Your task to perform on an android device: set the stopwatch Image 0: 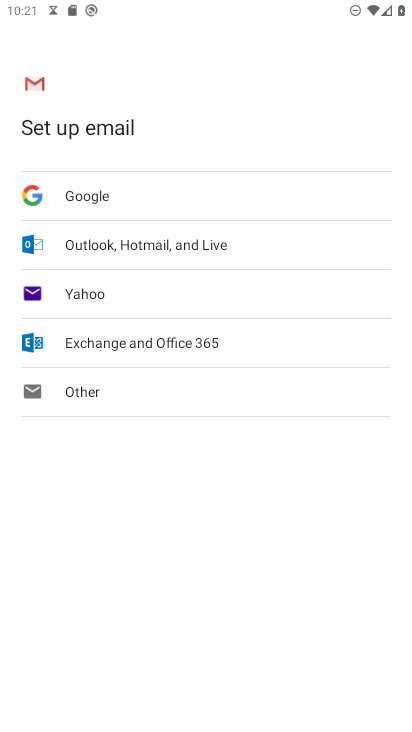
Step 0: press home button
Your task to perform on an android device: set the stopwatch Image 1: 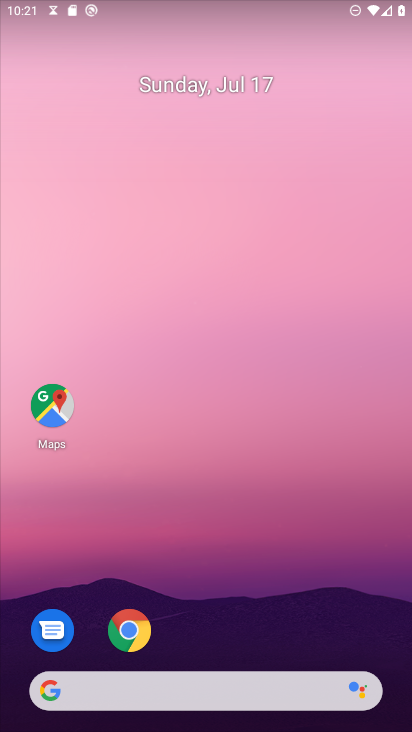
Step 1: drag from (286, 671) to (201, 344)
Your task to perform on an android device: set the stopwatch Image 2: 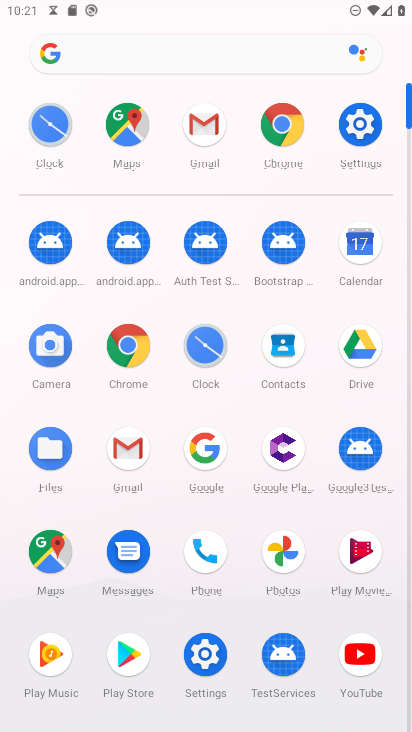
Step 2: click (200, 343)
Your task to perform on an android device: set the stopwatch Image 3: 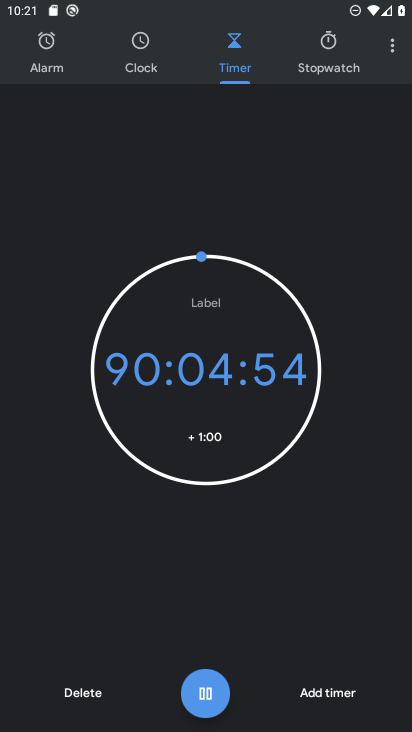
Step 3: click (312, 54)
Your task to perform on an android device: set the stopwatch Image 4: 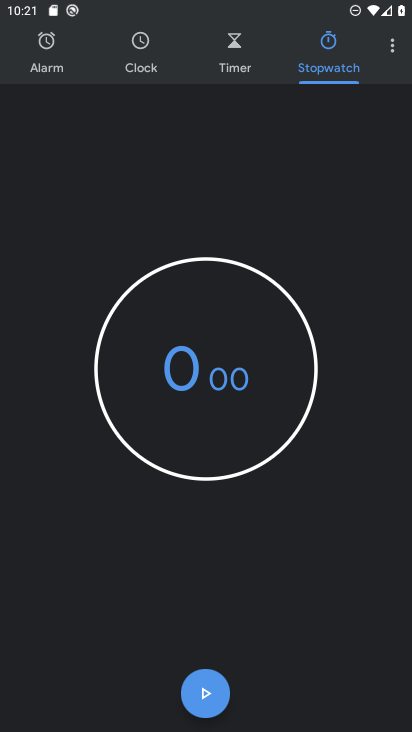
Step 4: click (192, 697)
Your task to perform on an android device: set the stopwatch Image 5: 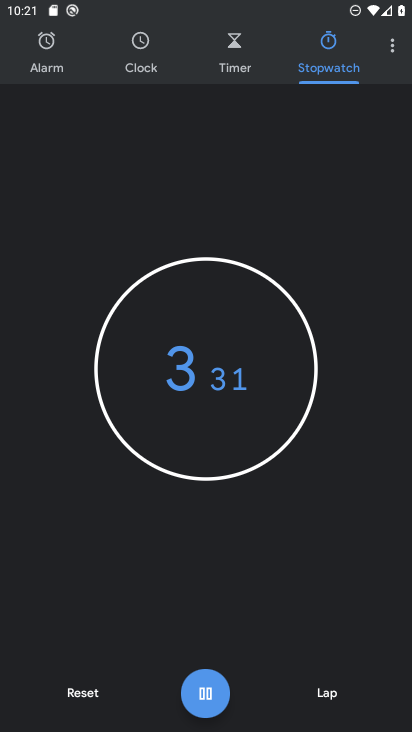
Step 5: task complete